Your task to perform on an android device: Go to CNN.com Image 0: 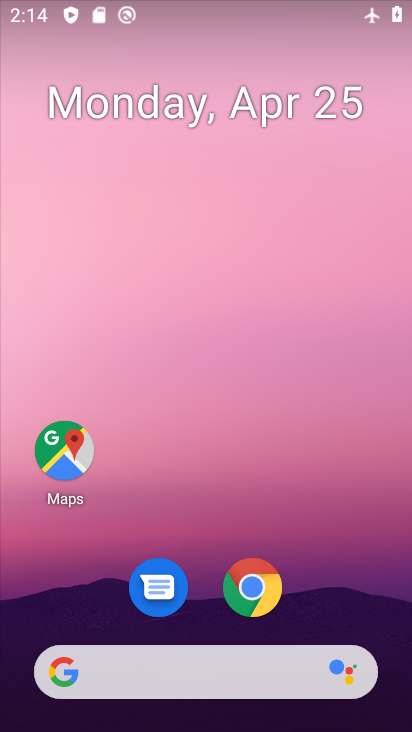
Step 0: click (253, 578)
Your task to perform on an android device: Go to CNN.com Image 1: 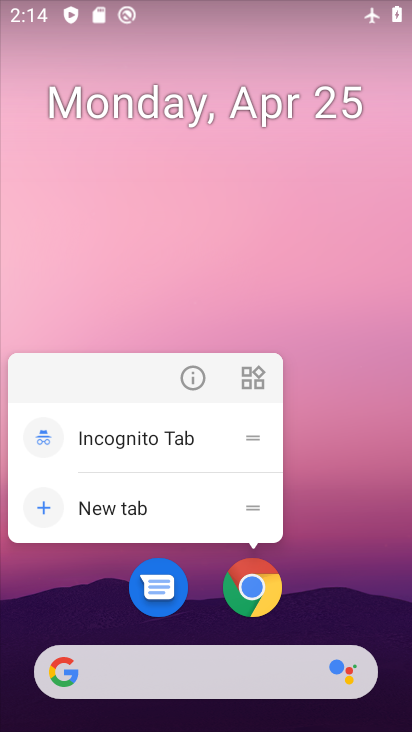
Step 1: click (253, 582)
Your task to perform on an android device: Go to CNN.com Image 2: 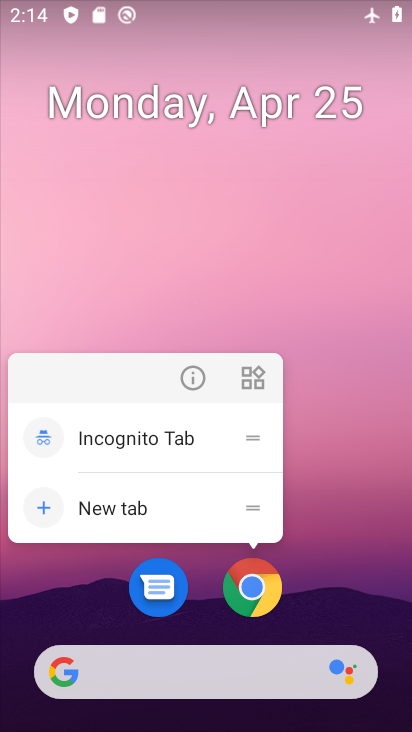
Step 2: drag from (320, 555) to (345, 0)
Your task to perform on an android device: Go to CNN.com Image 3: 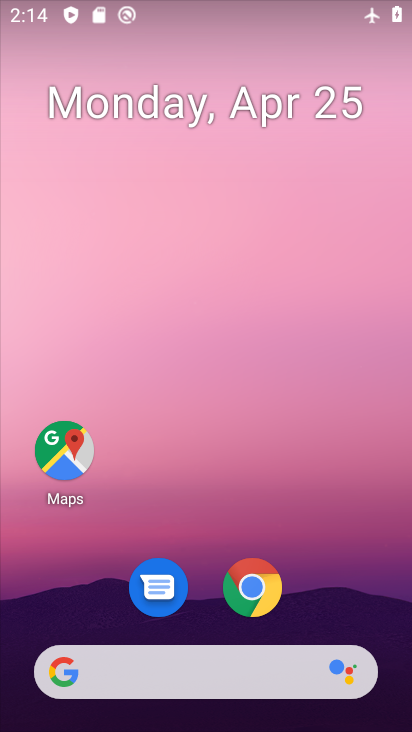
Step 3: drag from (322, 508) to (314, 45)
Your task to perform on an android device: Go to CNN.com Image 4: 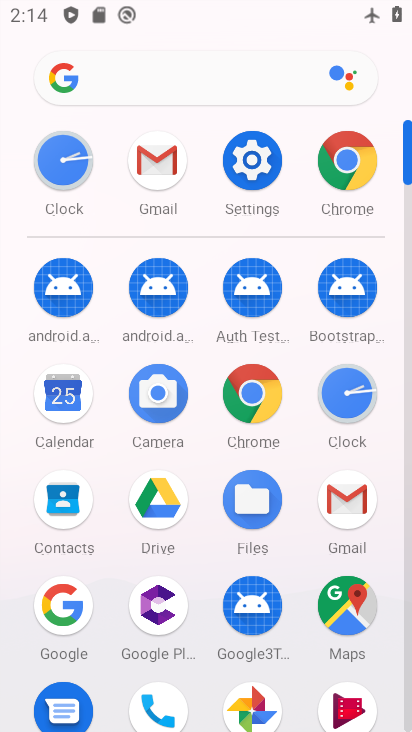
Step 4: click (262, 400)
Your task to perform on an android device: Go to CNN.com Image 5: 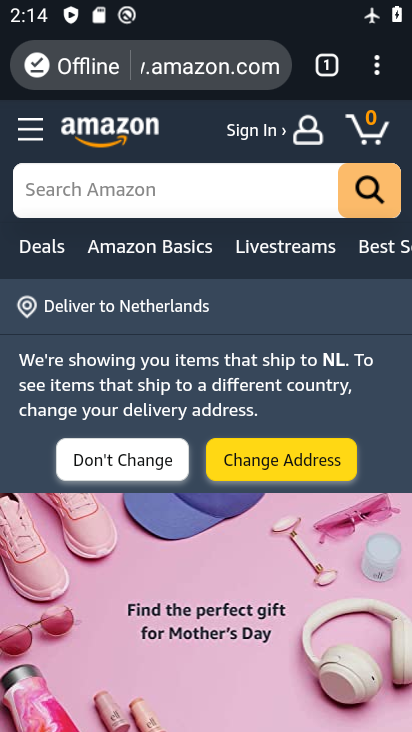
Step 5: click (230, 63)
Your task to perform on an android device: Go to CNN.com Image 6: 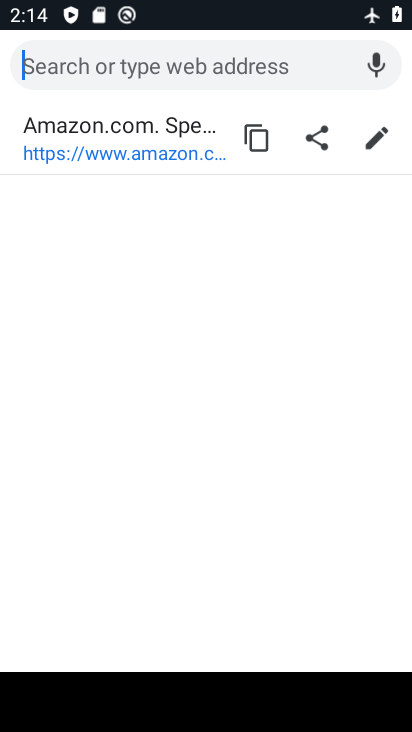
Step 6: type "cnn.com"
Your task to perform on an android device: Go to CNN.com Image 7: 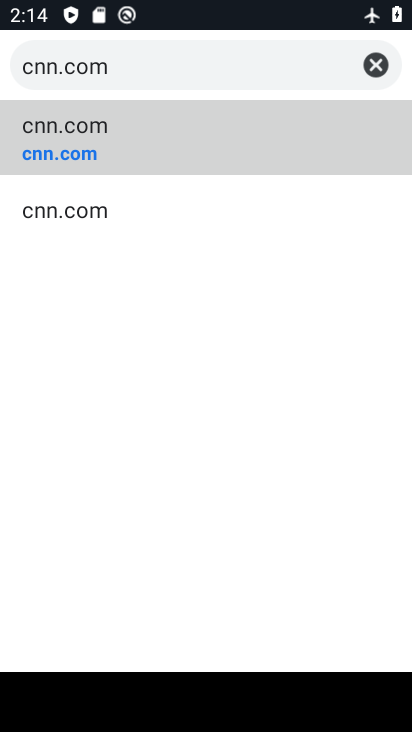
Step 7: click (77, 138)
Your task to perform on an android device: Go to CNN.com Image 8: 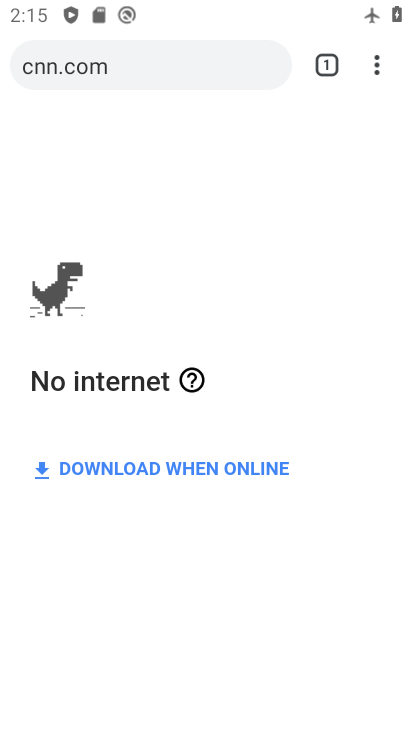
Step 8: task complete